Your task to perform on an android device: Open the calendar and show me this week's events? Image 0: 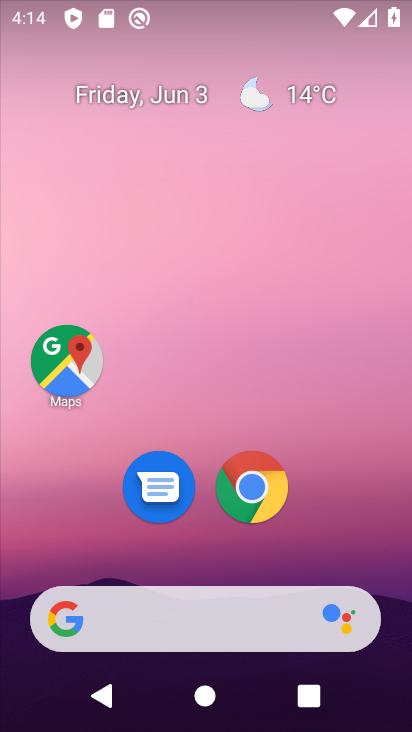
Step 0: drag from (168, 574) to (231, 69)
Your task to perform on an android device: Open the calendar and show me this week's events? Image 1: 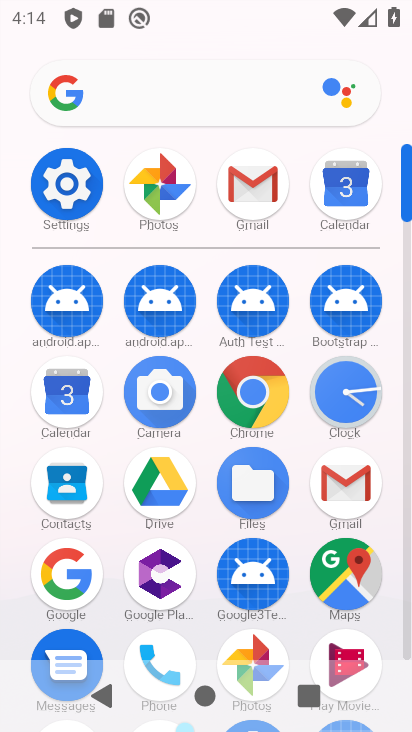
Step 1: click (74, 401)
Your task to perform on an android device: Open the calendar and show me this week's events? Image 2: 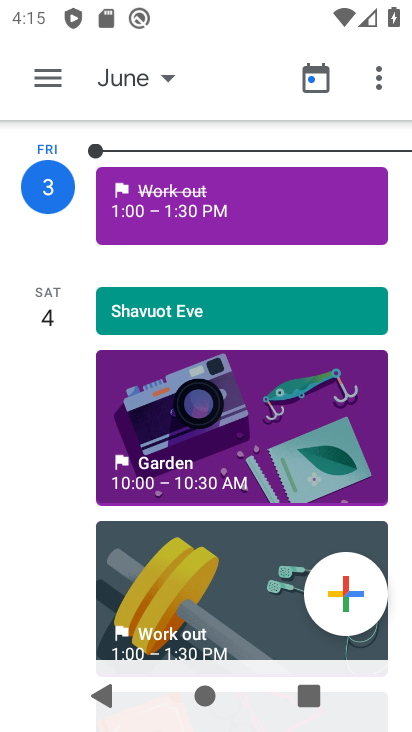
Step 2: click (126, 85)
Your task to perform on an android device: Open the calendar and show me this week's events? Image 3: 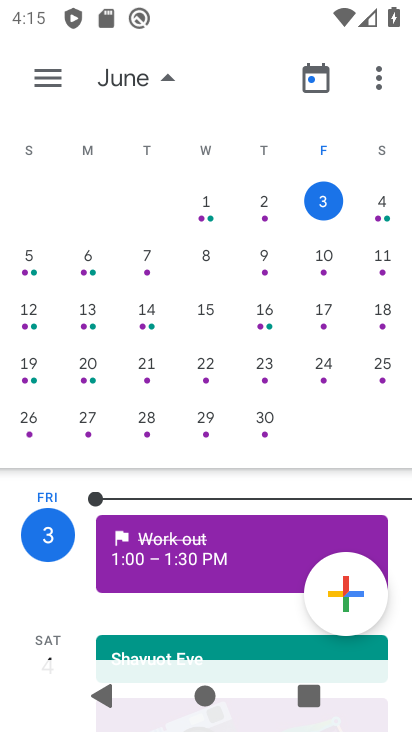
Step 3: drag from (196, 621) to (295, 132)
Your task to perform on an android device: Open the calendar and show me this week's events? Image 4: 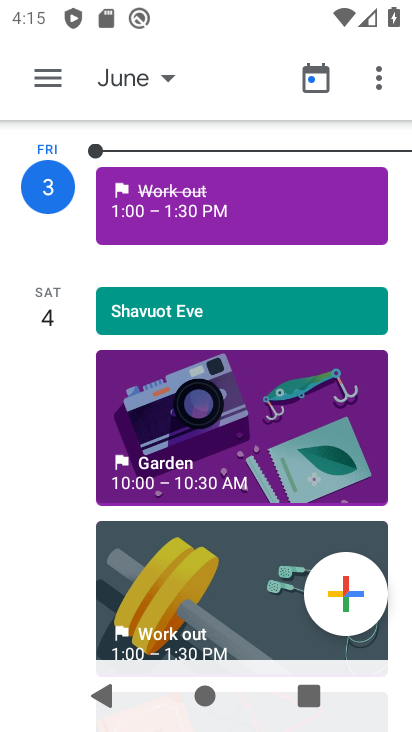
Step 4: click (139, 310)
Your task to perform on an android device: Open the calendar and show me this week's events? Image 5: 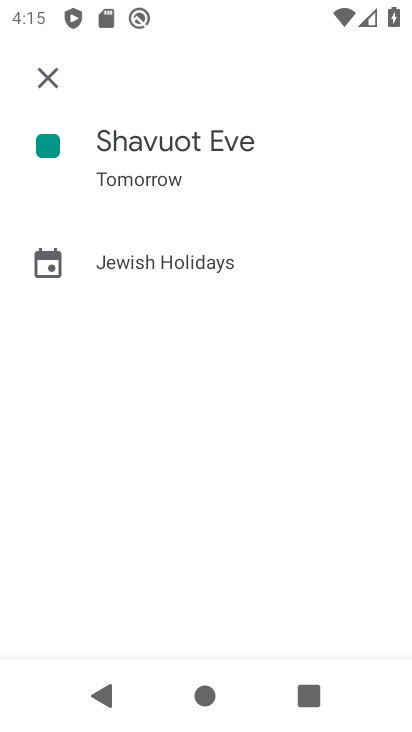
Step 5: task complete